Your task to perform on an android device: add a label to a message in the gmail app Image 0: 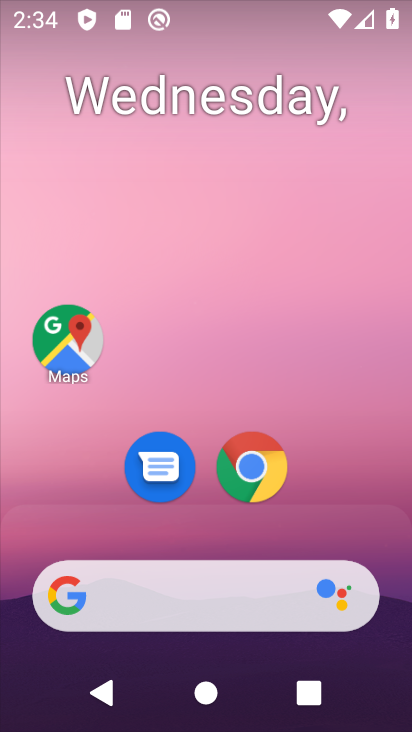
Step 0: drag from (128, 556) to (245, 130)
Your task to perform on an android device: add a label to a message in the gmail app Image 1: 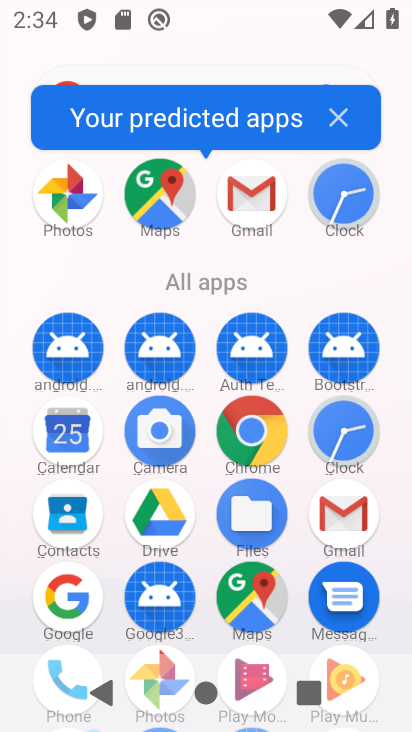
Step 1: click (351, 518)
Your task to perform on an android device: add a label to a message in the gmail app Image 2: 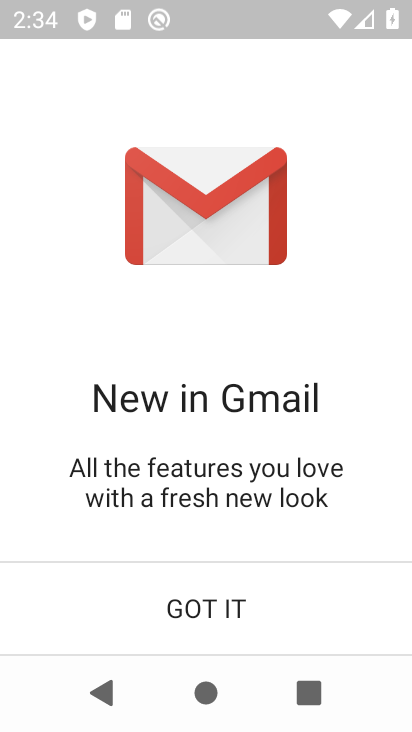
Step 2: click (308, 590)
Your task to perform on an android device: add a label to a message in the gmail app Image 3: 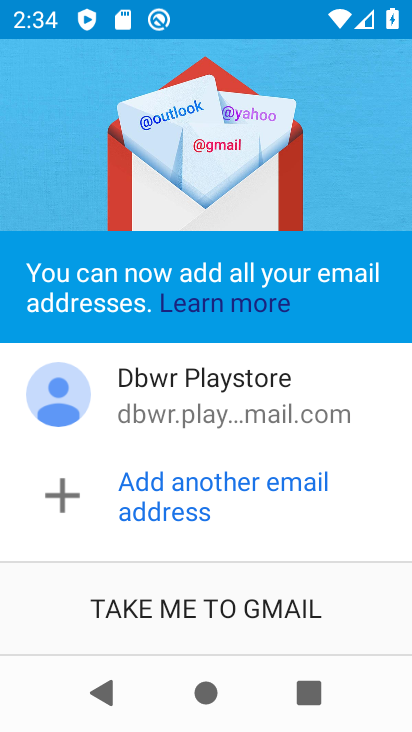
Step 3: click (264, 628)
Your task to perform on an android device: add a label to a message in the gmail app Image 4: 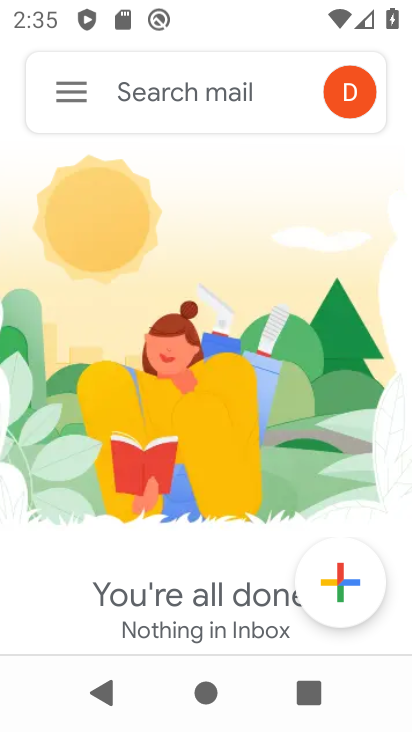
Step 4: click (70, 87)
Your task to perform on an android device: add a label to a message in the gmail app Image 5: 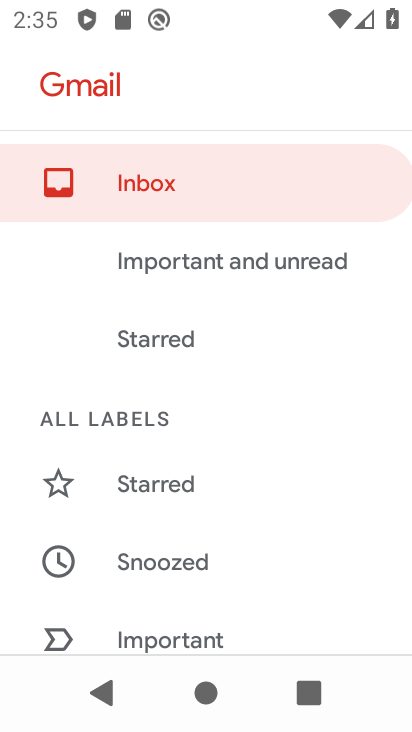
Step 5: drag from (132, 593) to (278, 138)
Your task to perform on an android device: add a label to a message in the gmail app Image 6: 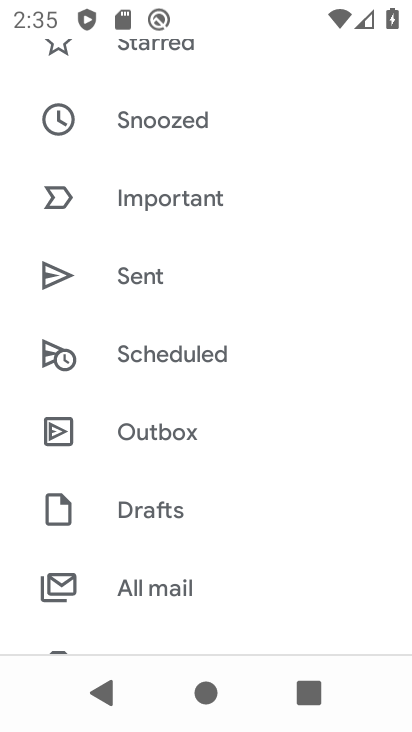
Step 6: drag from (239, 535) to (314, 179)
Your task to perform on an android device: add a label to a message in the gmail app Image 7: 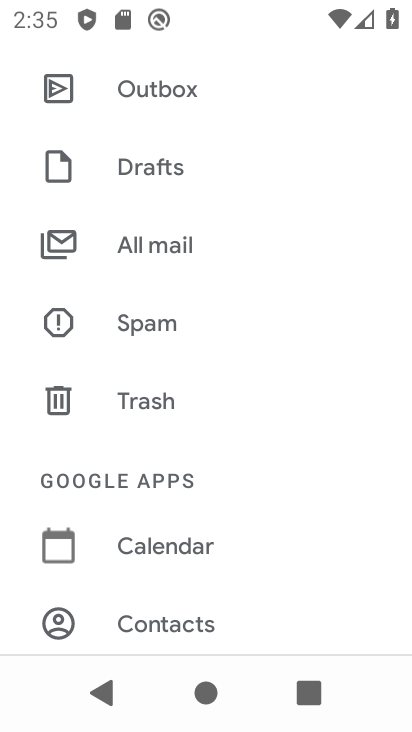
Step 7: click (227, 256)
Your task to perform on an android device: add a label to a message in the gmail app Image 8: 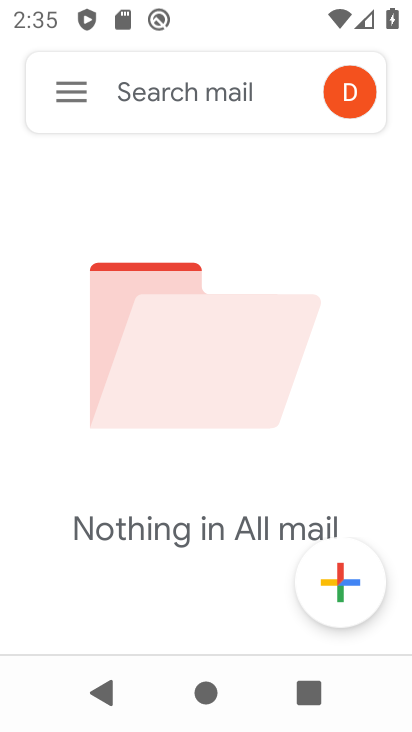
Step 8: task complete